Your task to perform on an android device: change the clock display to show seconds Image 0: 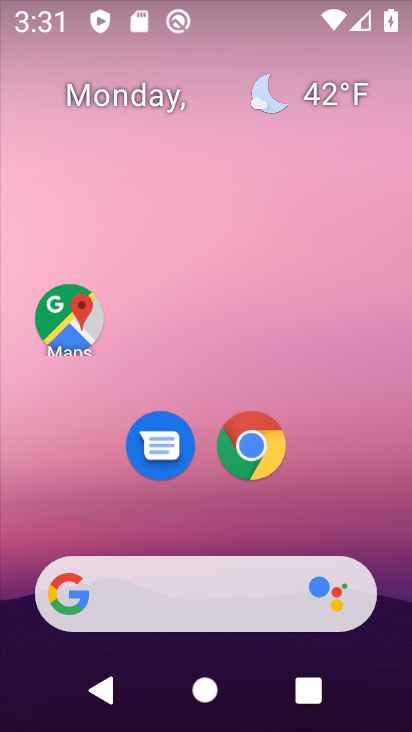
Step 0: drag from (10, 525) to (243, 44)
Your task to perform on an android device: change the clock display to show seconds Image 1: 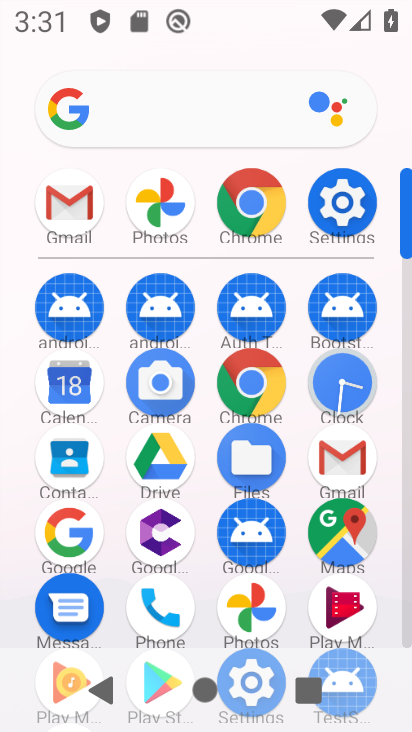
Step 1: click (339, 383)
Your task to perform on an android device: change the clock display to show seconds Image 2: 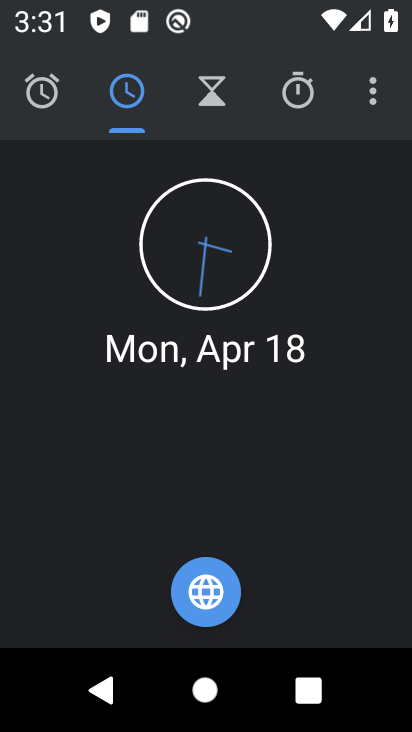
Step 2: click (370, 93)
Your task to perform on an android device: change the clock display to show seconds Image 3: 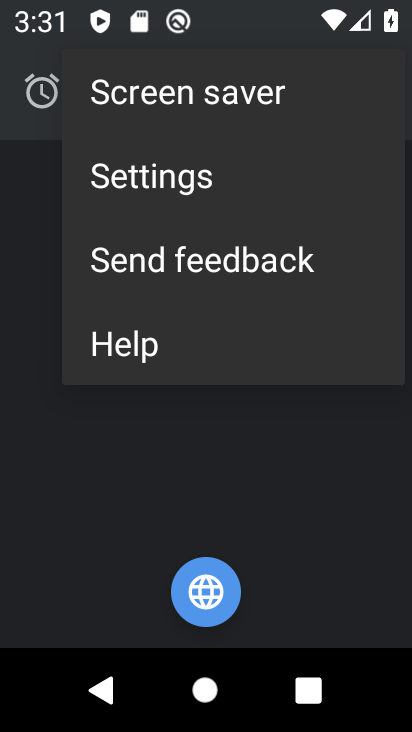
Step 3: click (251, 162)
Your task to perform on an android device: change the clock display to show seconds Image 4: 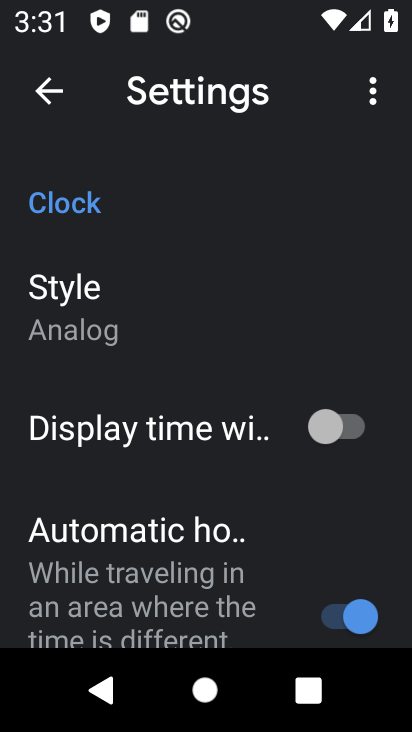
Step 4: click (295, 432)
Your task to perform on an android device: change the clock display to show seconds Image 5: 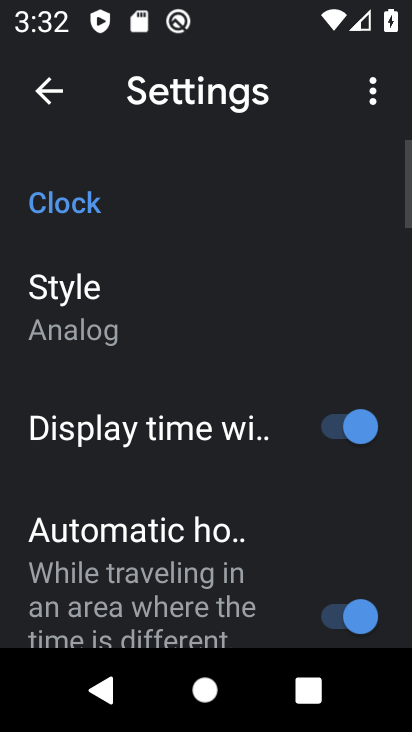
Step 5: task complete